Your task to perform on an android device: change timer sound Image 0: 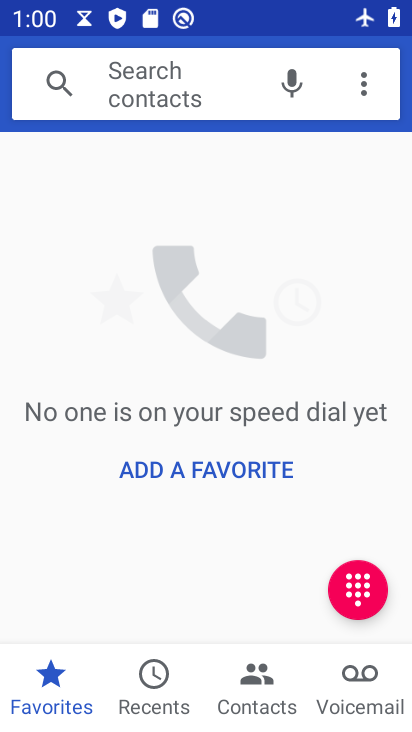
Step 0: press back button
Your task to perform on an android device: change timer sound Image 1: 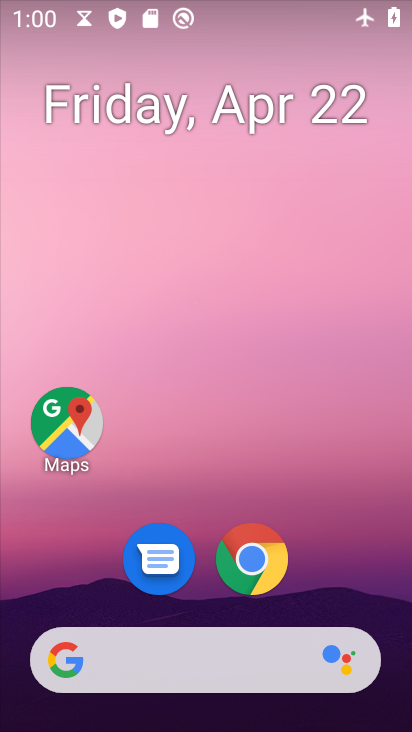
Step 1: click (255, 258)
Your task to perform on an android device: change timer sound Image 2: 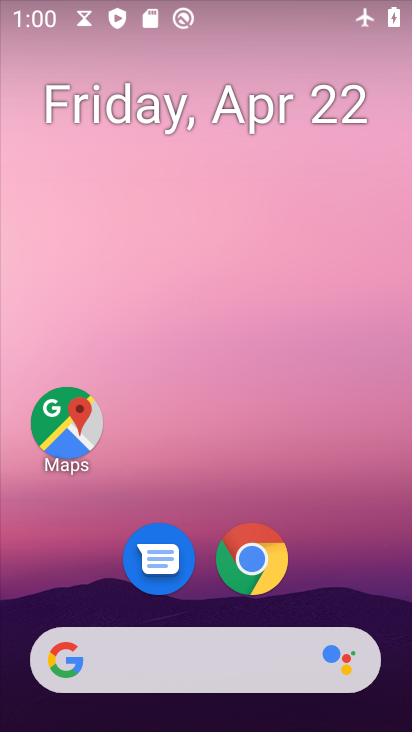
Step 2: drag from (239, 593) to (285, 253)
Your task to perform on an android device: change timer sound Image 3: 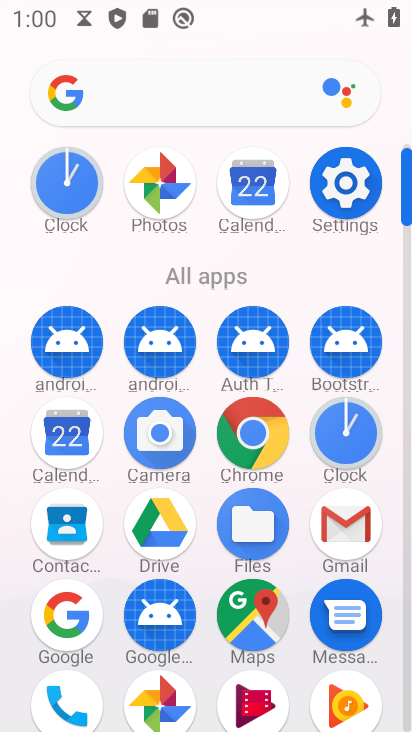
Step 3: drag from (207, 548) to (207, 299)
Your task to perform on an android device: change timer sound Image 4: 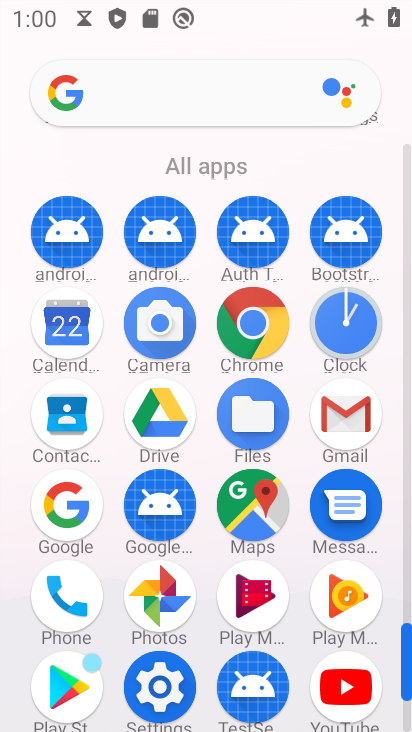
Step 4: click (352, 347)
Your task to perform on an android device: change timer sound Image 5: 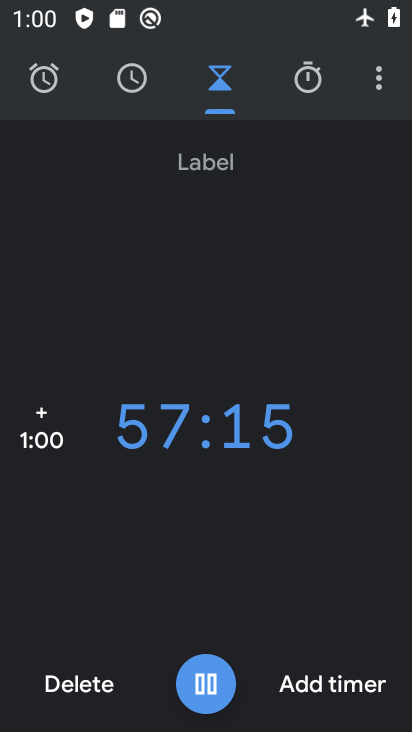
Step 5: click (379, 79)
Your task to perform on an android device: change timer sound Image 6: 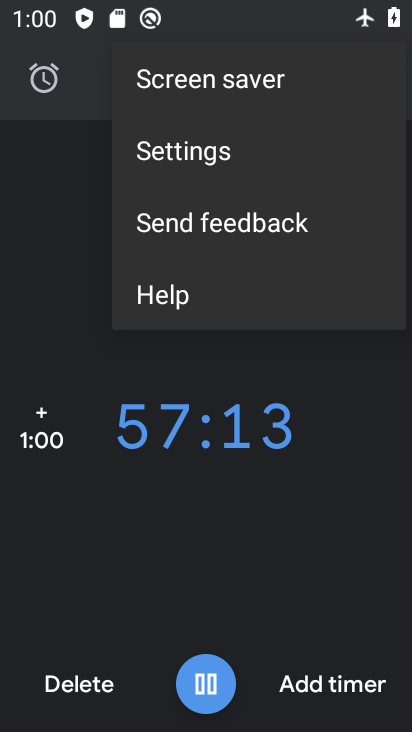
Step 6: click (197, 153)
Your task to perform on an android device: change timer sound Image 7: 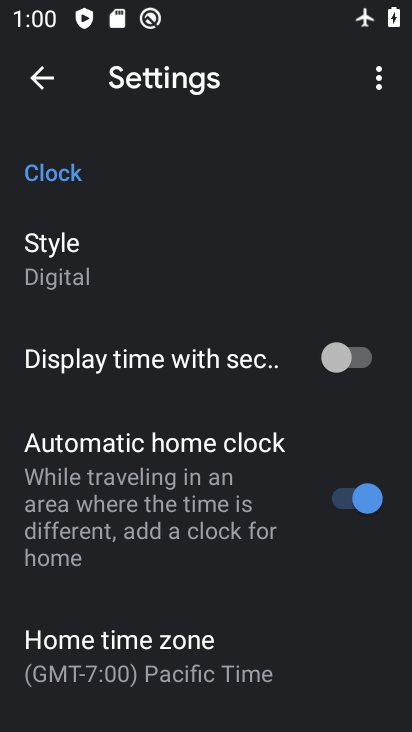
Step 7: drag from (173, 712) to (217, 308)
Your task to perform on an android device: change timer sound Image 8: 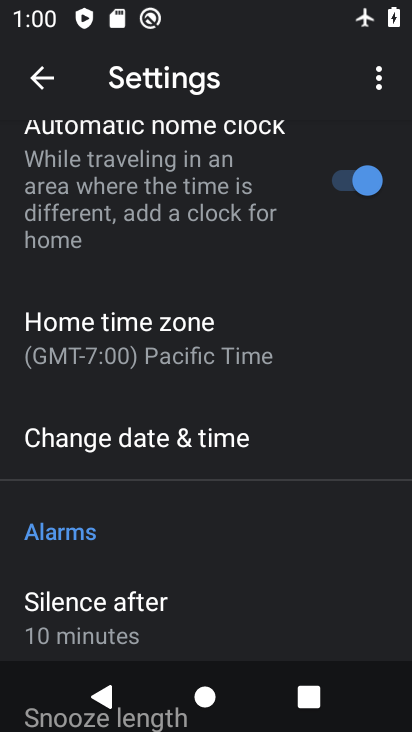
Step 8: drag from (201, 593) to (242, 298)
Your task to perform on an android device: change timer sound Image 9: 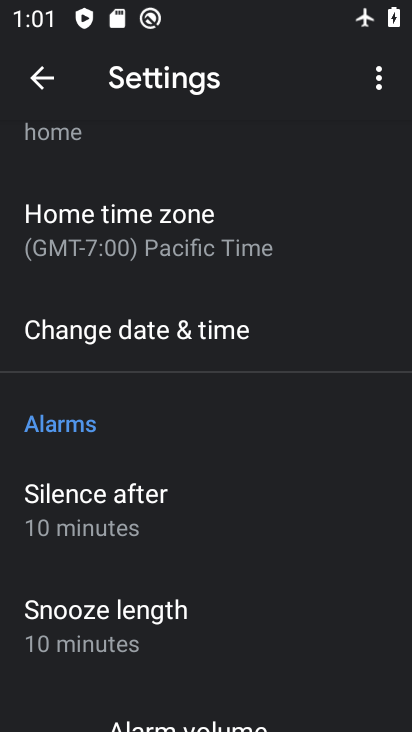
Step 9: drag from (185, 677) to (189, 325)
Your task to perform on an android device: change timer sound Image 10: 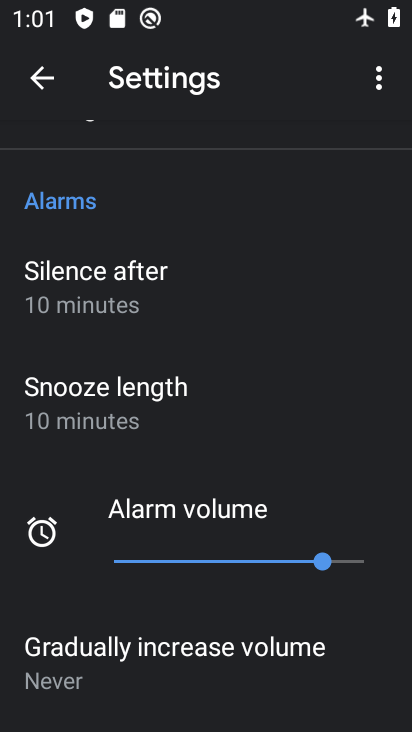
Step 10: drag from (174, 658) to (202, 365)
Your task to perform on an android device: change timer sound Image 11: 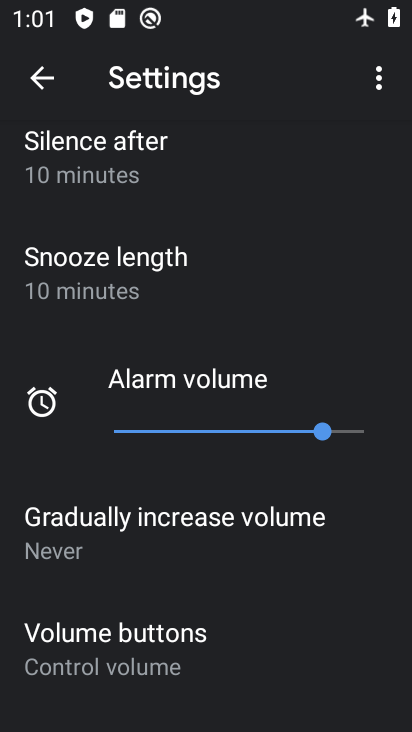
Step 11: drag from (162, 648) to (222, 317)
Your task to perform on an android device: change timer sound Image 12: 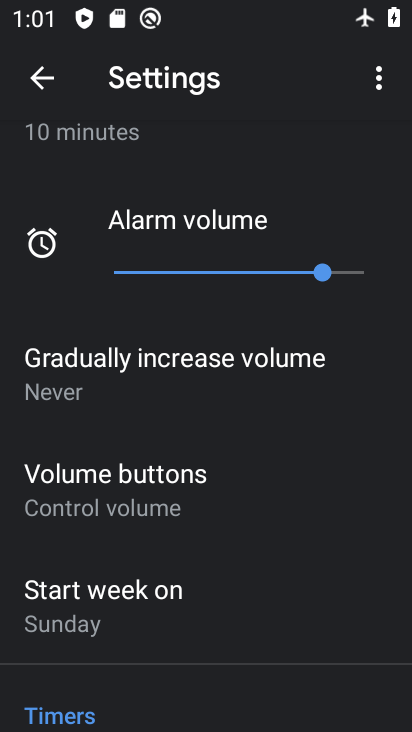
Step 12: drag from (171, 660) to (229, 279)
Your task to perform on an android device: change timer sound Image 13: 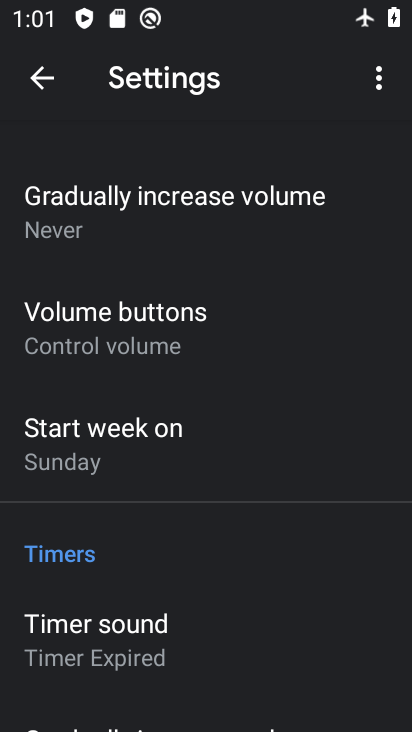
Step 13: click (134, 637)
Your task to perform on an android device: change timer sound Image 14: 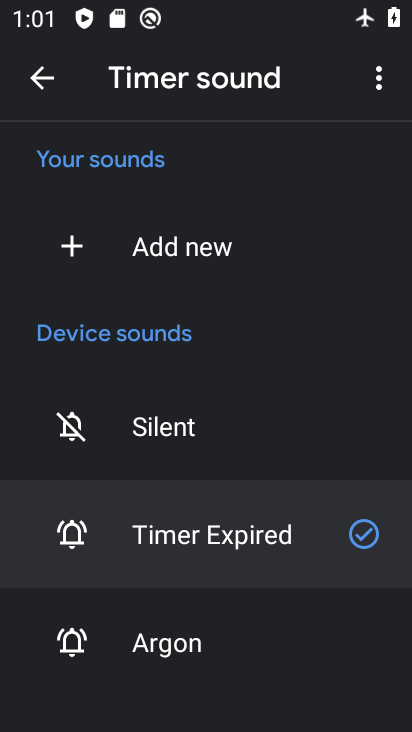
Step 14: click (157, 648)
Your task to perform on an android device: change timer sound Image 15: 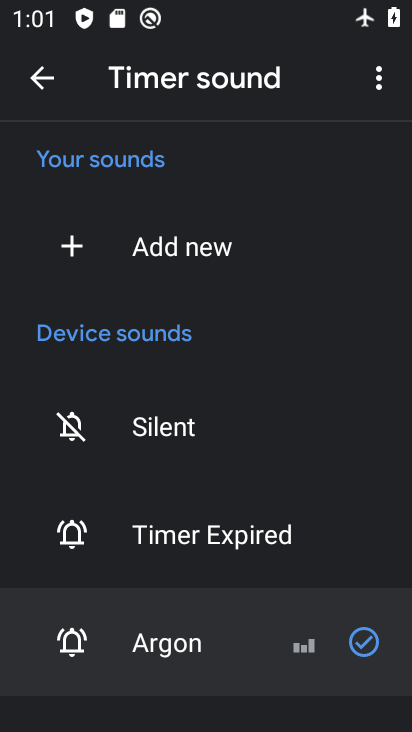
Step 15: task complete